Your task to perform on an android device: change keyboard looks Image 0: 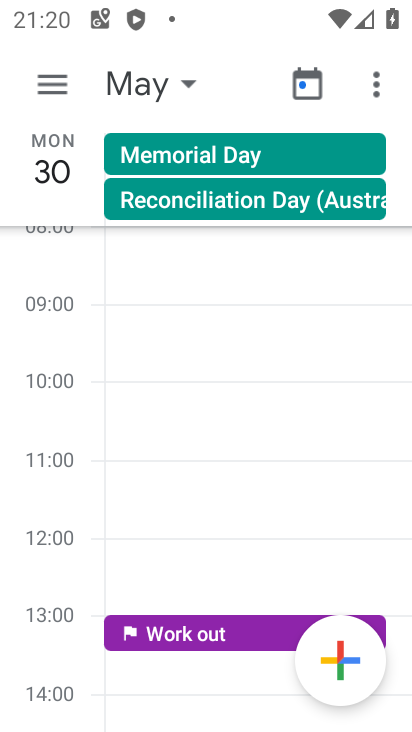
Step 0: press home button
Your task to perform on an android device: change keyboard looks Image 1: 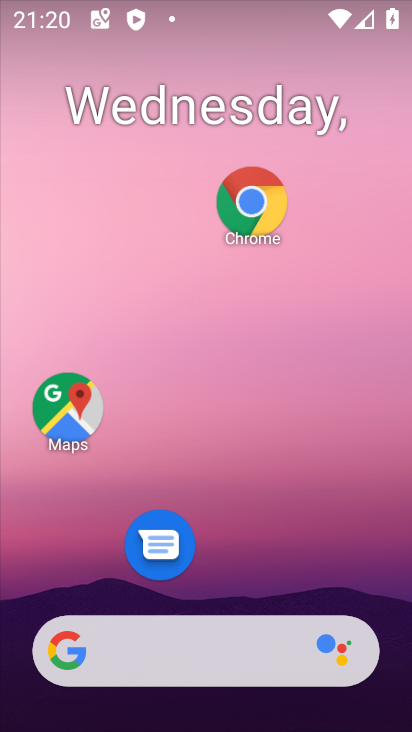
Step 1: drag from (223, 528) to (207, 233)
Your task to perform on an android device: change keyboard looks Image 2: 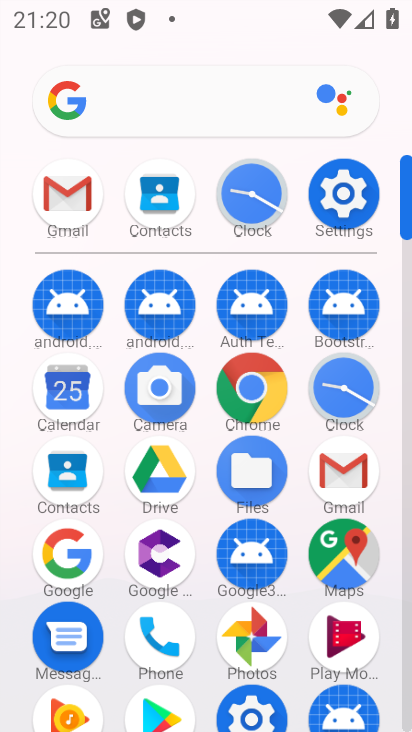
Step 2: click (333, 205)
Your task to perform on an android device: change keyboard looks Image 3: 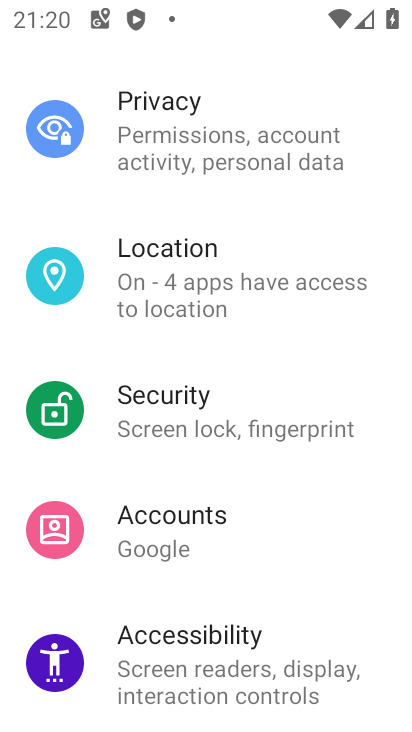
Step 3: drag from (177, 196) to (211, 706)
Your task to perform on an android device: change keyboard looks Image 4: 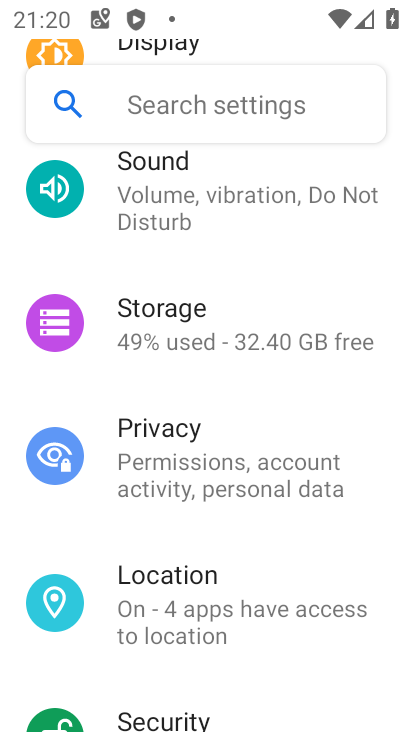
Step 4: drag from (173, 226) to (252, 659)
Your task to perform on an android device: change keyboard looks Image 5: 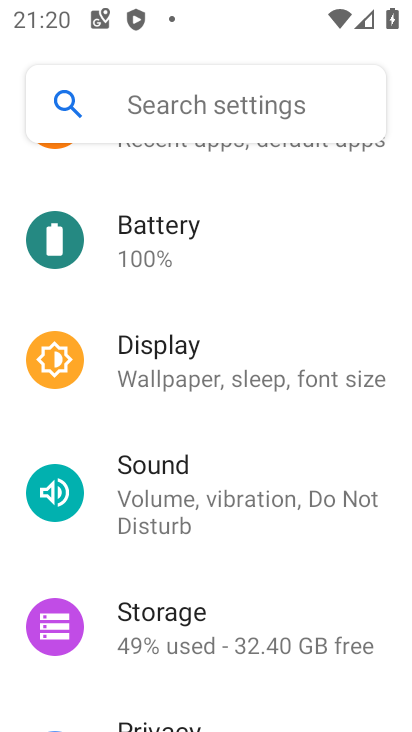
Step 5: drag from (175, 191) to (246, 610)
Your task to perform on an android device: change keyboard looks Image 6: 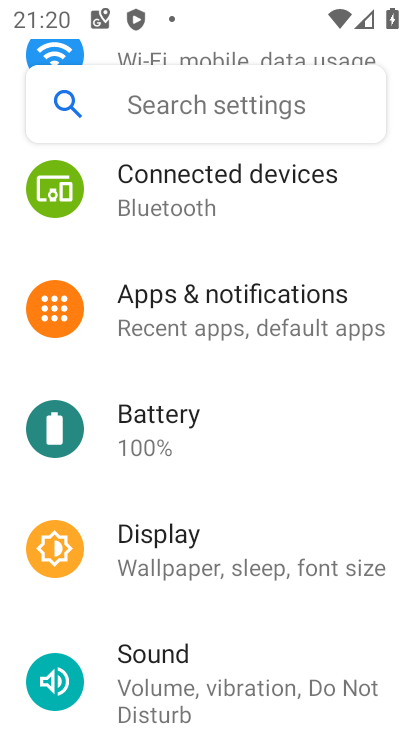
Step 6: drag from (246, 610) to (228, 216)
Your task to perform on an android device: change keyboard looks Image 7: 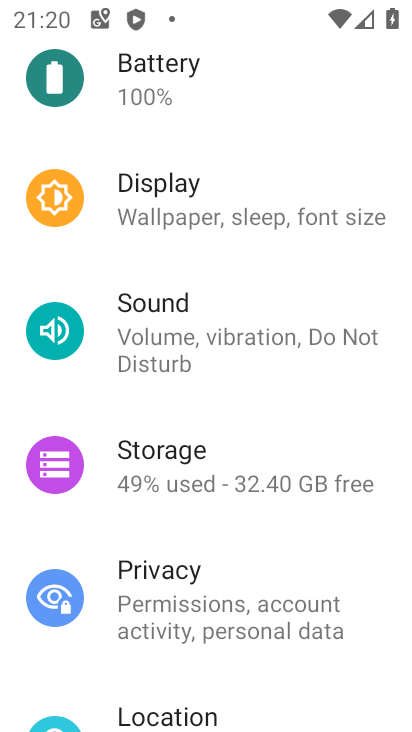
Step 7: drag from (136, 685) to (244, 230)
Your task to perform on an android device: change keyboard looks Image 8: 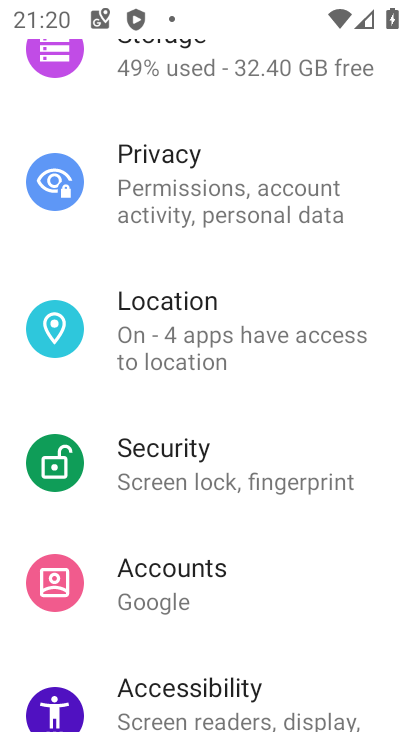
Step 8: drag from (204, 609) to (238, 223)
Your task to perform on an android device: change keyboard looks Image 9: 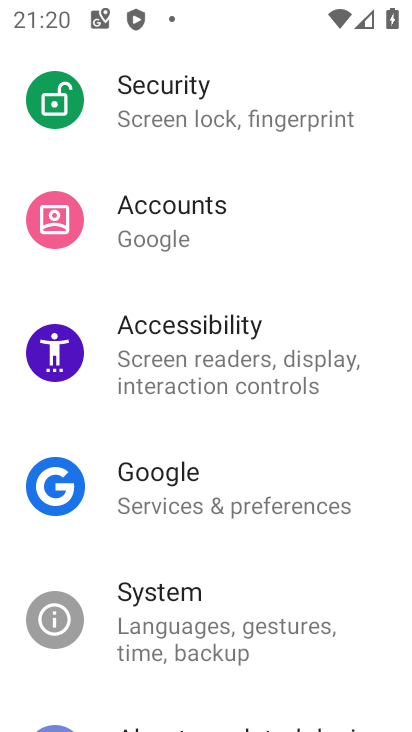
Step 9: drag from (134, 681) to (214, 265)
Your task to perform on an android device: change keyboard looks Image 10: 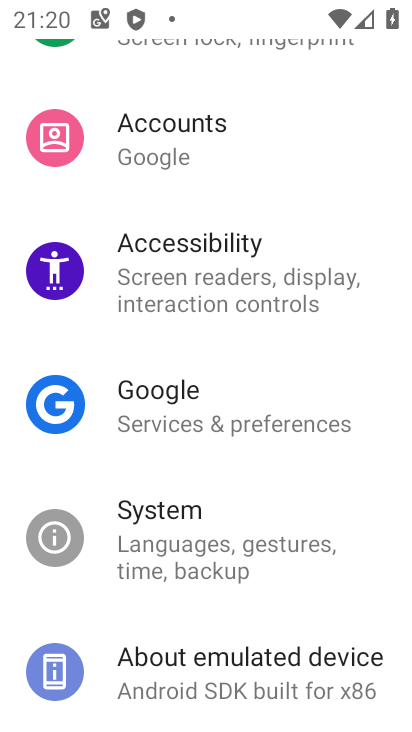
Step 10: click (138, 564)
Your task to perform on an android device: change keyboard looks Image 11: 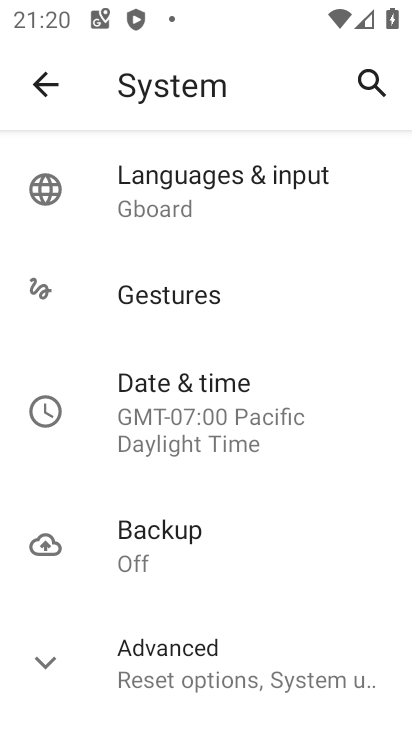
Step 11: click (180, 190)
Your task to perform on an android device: change keyboard looks Image 12: 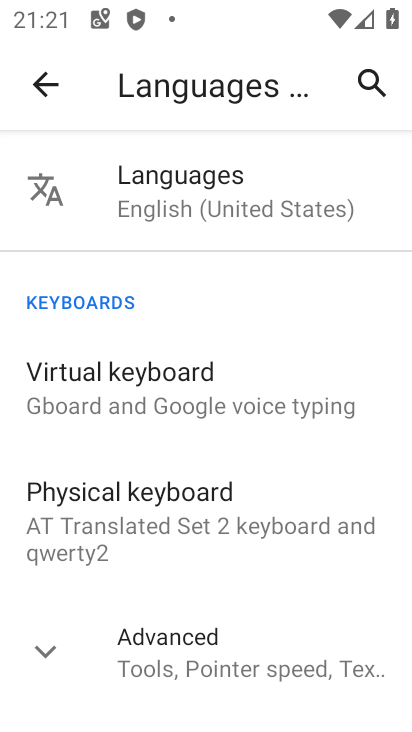
Step 12: click (186, 387)
Your task to perform on an android device: change keyboard looks Image 13: 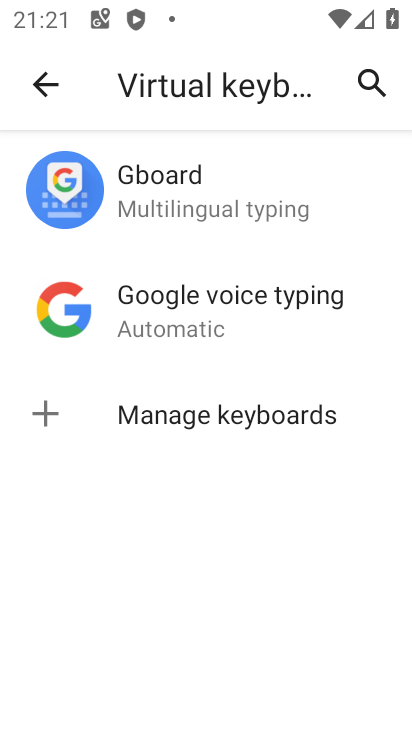
Step 13: click (162, 187)
Your task to perform on an android device: change keyboard looks Image 14: 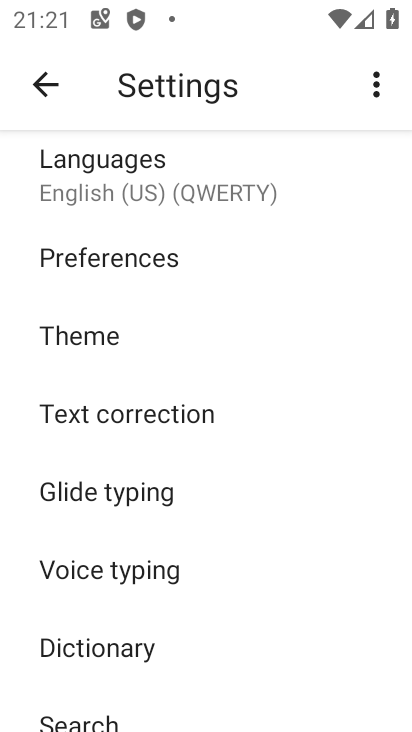
Step 14: click (131, 356)
Your task to perform on an android device: change keyboard looks Image 15: 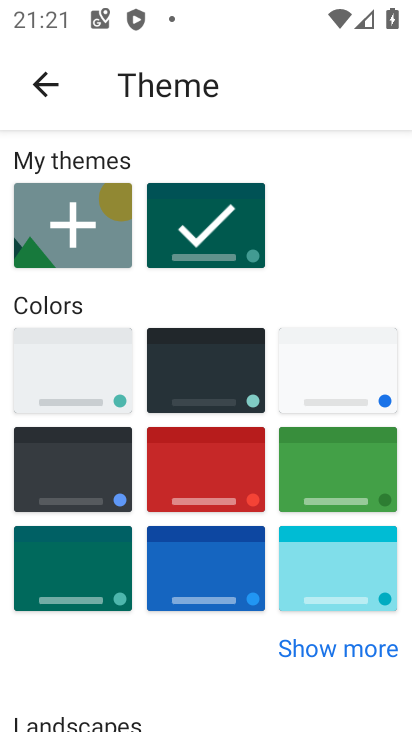
Step 15: click (85, 384)
Your task to perform on an android device: change keyboard looks Image 16: 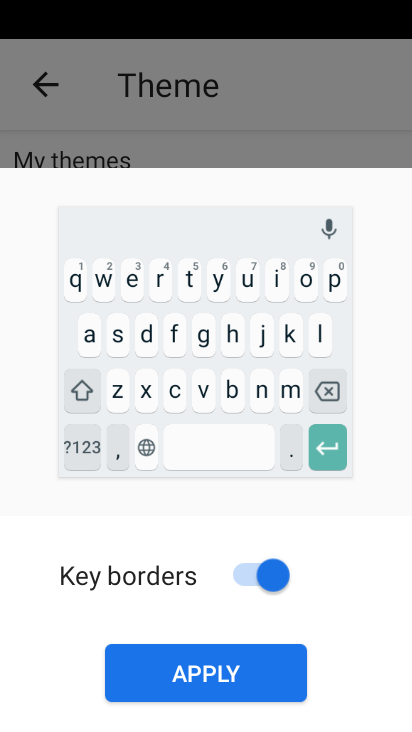
Step 16: click (183, 667)
Your task to perform on an android device: change keyboard looks Image 17: 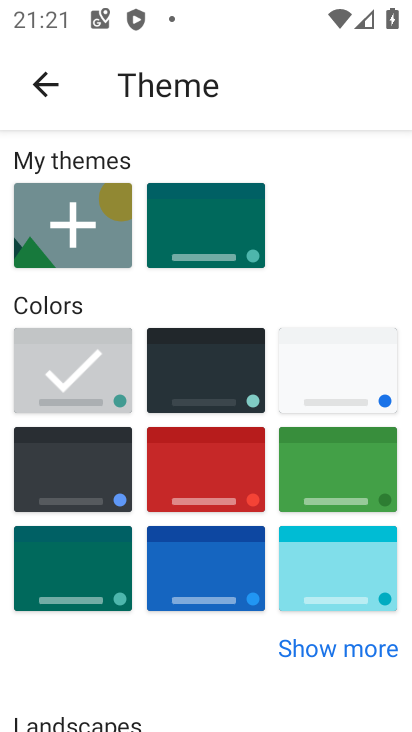
Step 17: task complete